Your task to perform on an android device: open a new tab in the chrome app Image 0: 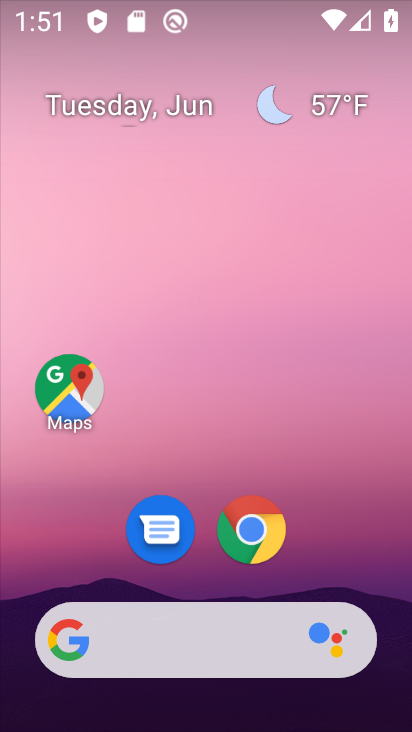
Step 0: click (249, 534)
Your task to perform on an android device: open a new tab in the chrome app Image 1: 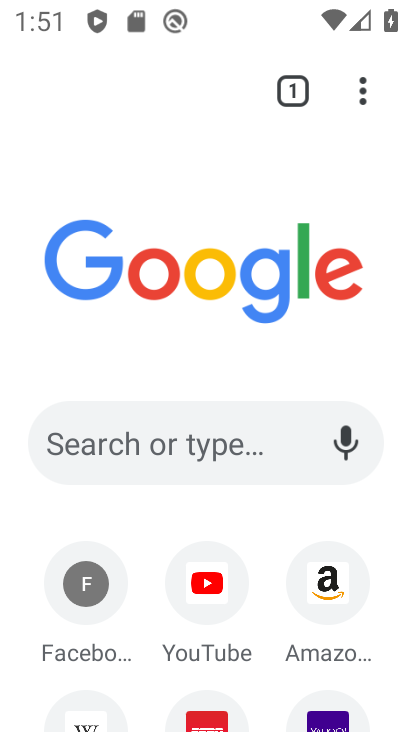
Step 1: task complete